Your task to perform on an android device: What's on my calendar tomorrow? Image 0: 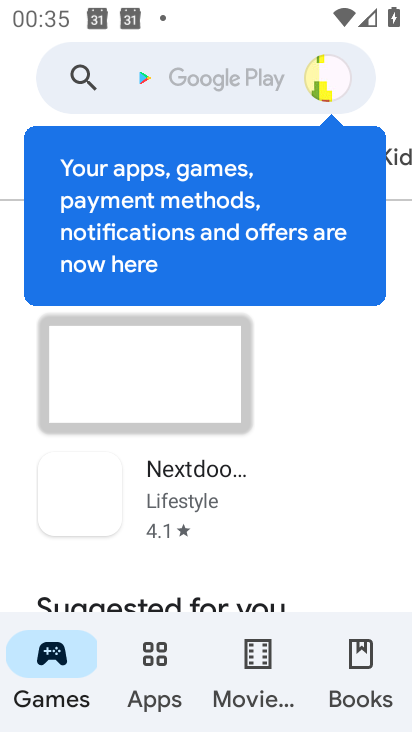
Step 0: press home button
Your task to perform on an android device: What's on my calendar tomorrow? Image 1: 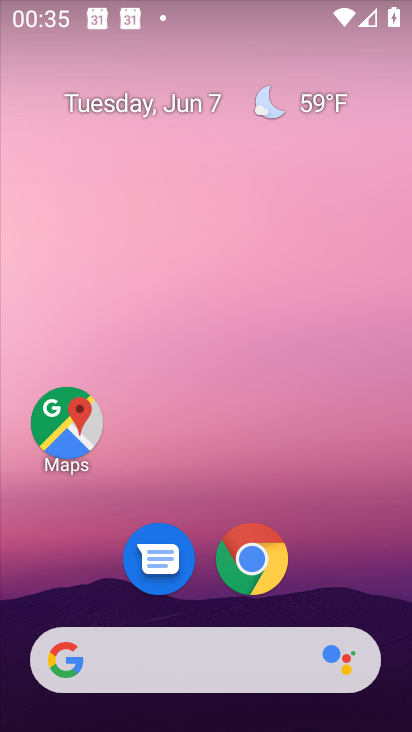
Step 1: drag from (332, 564) to (367, 63)
Your task to perform on an android device: What's on my calendar tomorrow? Image 2: 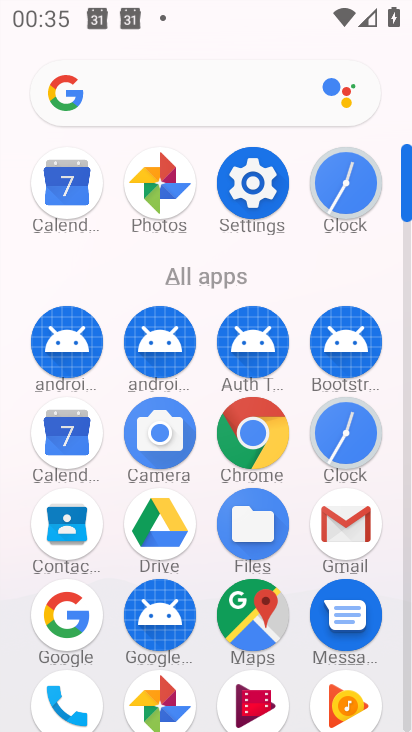
Step 2: click (407, 295)
Your task to perform on an android device: What's on my calendar tomorrow? Image 3: 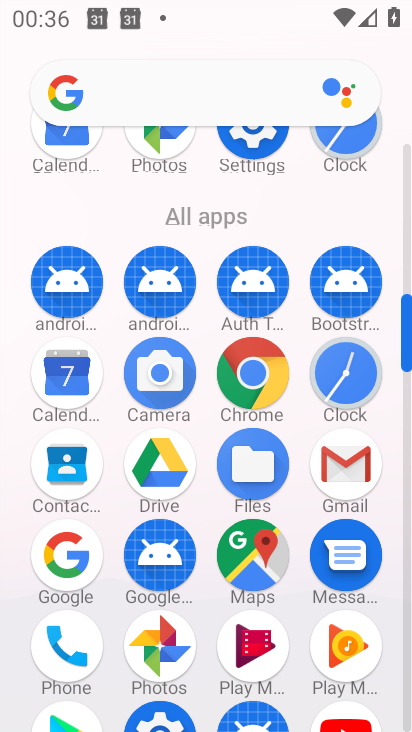
Step 3: click (58, 370)
Your task to perform on an android device: What's on my calendar tomorrow? Image 4: 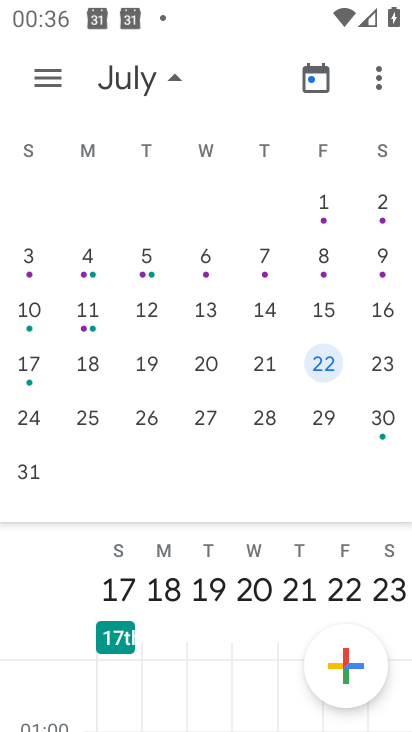
Step 4: drag from (250, 205) to (382, 216)
Your task to perform on an android device: What's on my calendar tomorrow? Image 5: 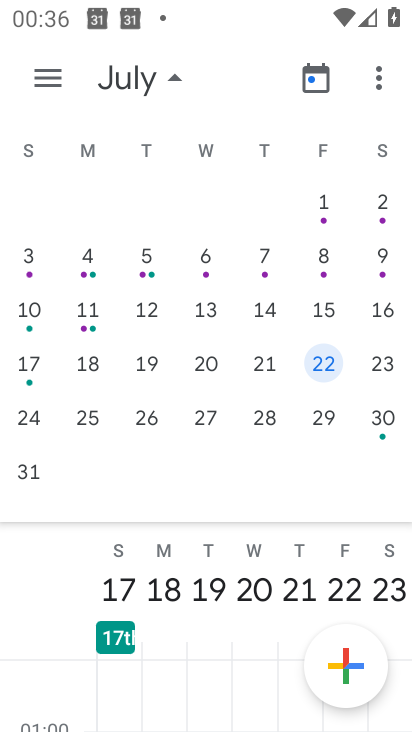
Step 5: drag from (25, 216) to (411, 221)
Your task to perform on an android device: What's on my calendar tomorrow? Image 6: 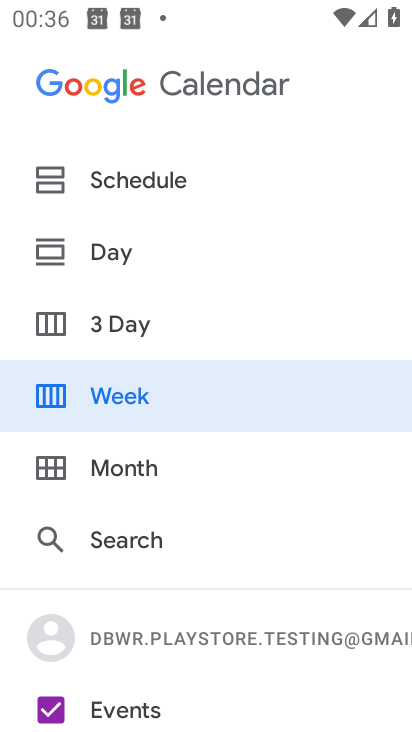
Step 6: click (149, 476)
Your task to perform on an android device: What's on my calendar tomorrow? Image 7: 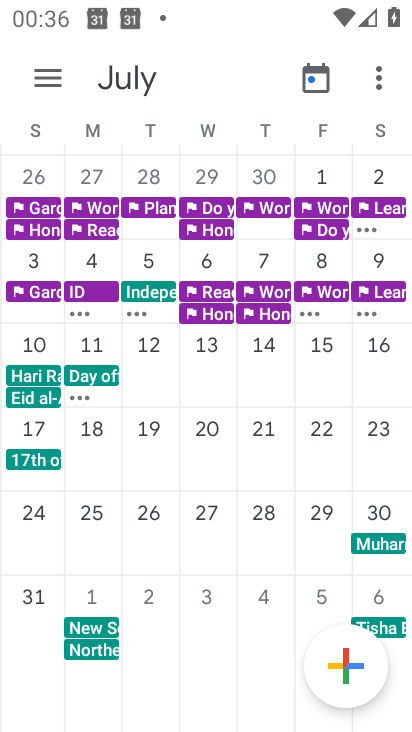
Step 7: drag from (133, 209) to (162, 447)
Your task to perform on an android device: What's on my calendar tomorrow? Image 8: 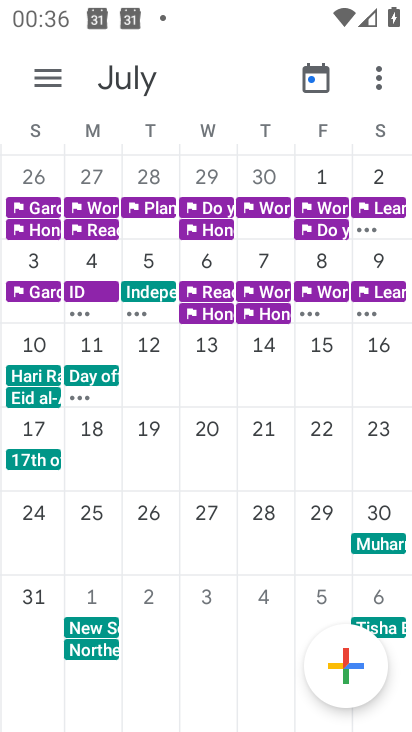
Step 8: drag from (4, 313) to (328, 309)
Your task to perform on an android device: What's on my calendar tomorrow? Image 9: 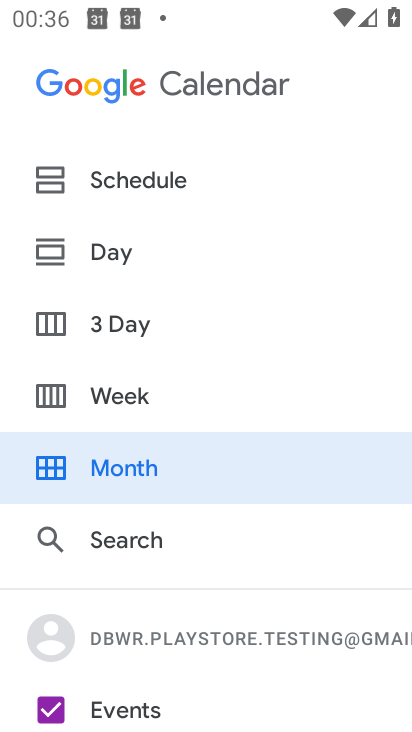
Step 9: click (232, 469)
Your task to perform on an android device: What's on my calendar tomorrow? Image 10: 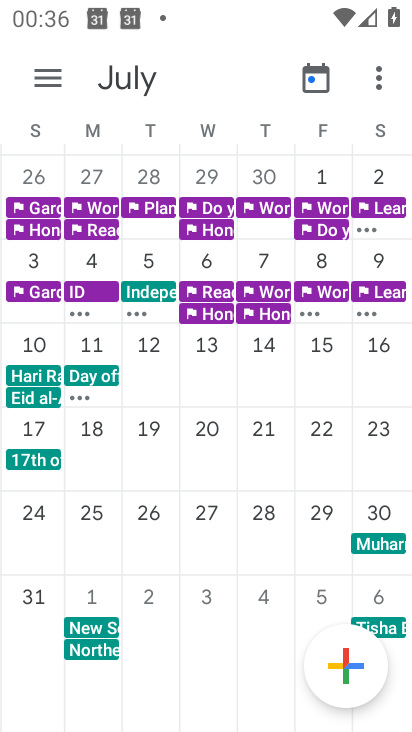
Step 10: drag from (32, 284) to (401, 391)
Your task to perform on an android device: What's on my calendar tomorrow? Image 11: 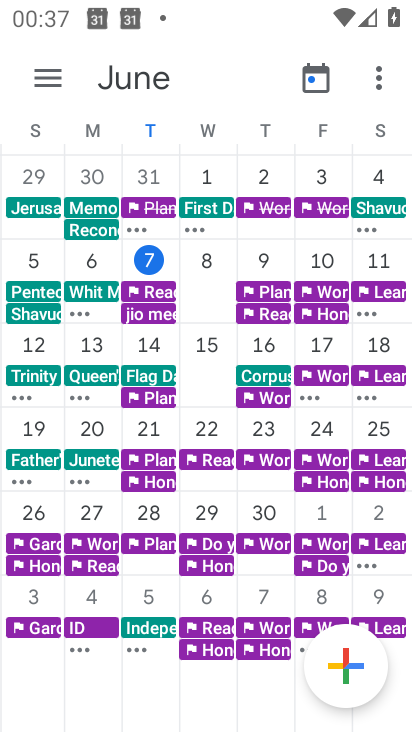
Step 11: click (209, 256)
Your task to perform on an android device: What's on my calendar tomorrow? Image 12: 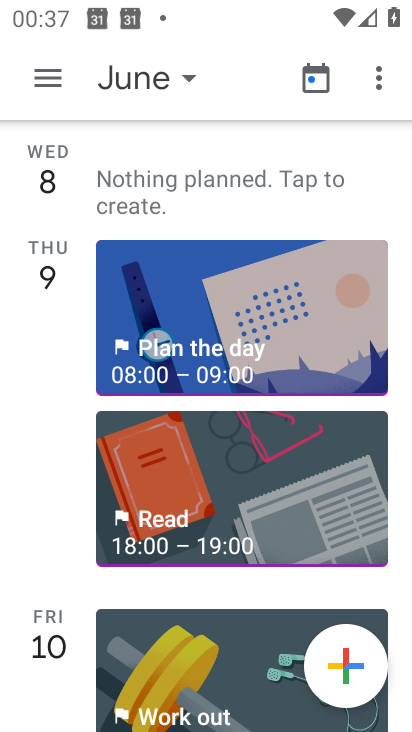
Step 12: press home button
Your task to perform on an android device: What's on my calendar tomorrow? Image 13: 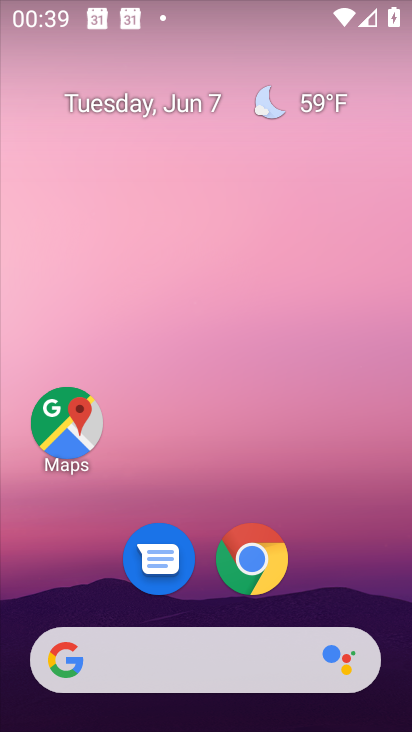
Step 13: click (338, 463)
Your task to perform on an android device: What's on my calendar tomorrow? Image 14: 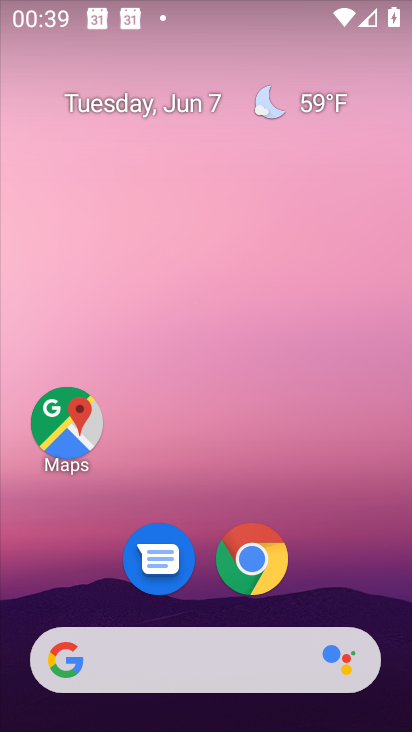
Step 14: drag from (339, 581) to (372, 170)
Your task to perform on an android device: What's on my calendar tomorrow? Image 15: 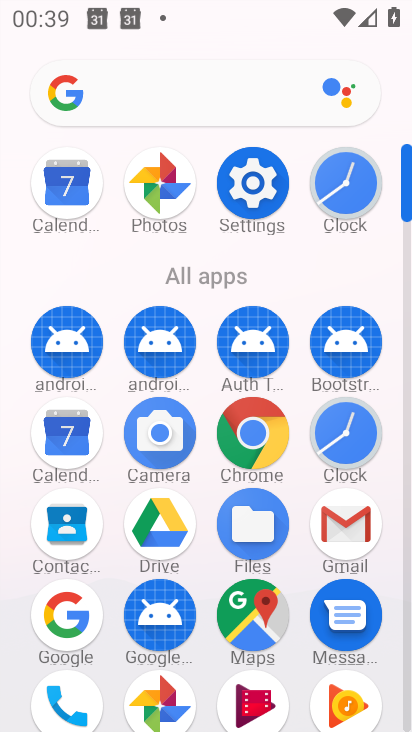
Step 15: click (372, 170)
Your task to perform on an android device: What's on my calendar tomorrow? Image 16: 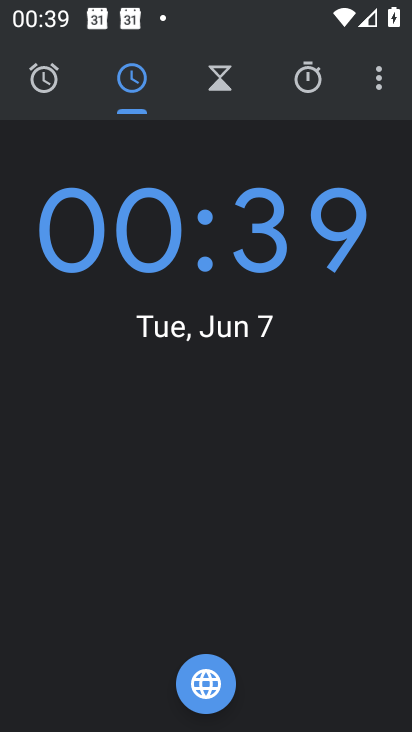
Step 16: press home button
Your task to perform on an android device: What's on my calendar tomorrow? Image 17: 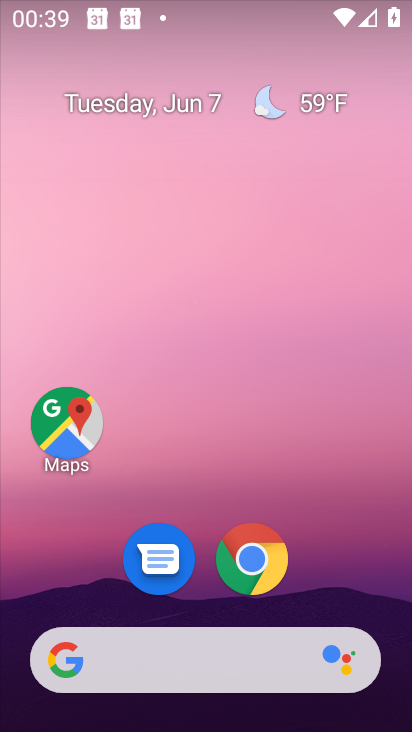
Step 17: drag from (343, 587) to (296, 41)
Your task to perform on an android device: What's on my calendar tomorrow? Image 18: 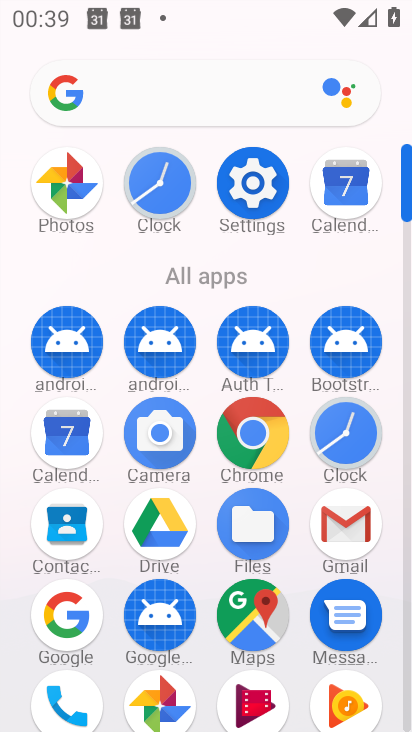
Step 18: click (338, 164)
Your task to perform on an android device: What's on my calendar tomorrow? Image 19: 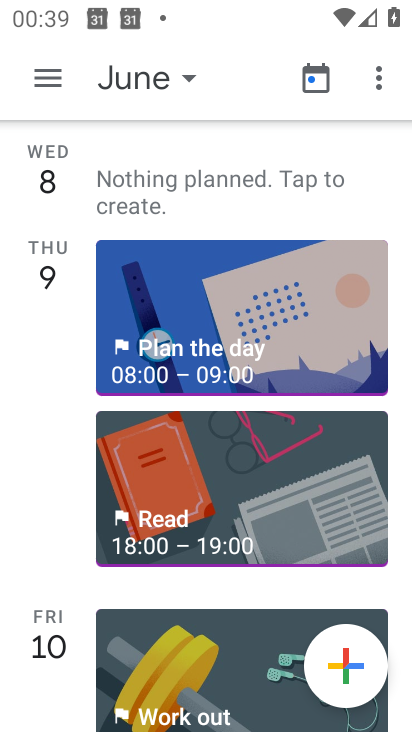
Step 19: click (46, 78)
Your task to perform on an android device: What's on my calendar tomorrow? Image 20: 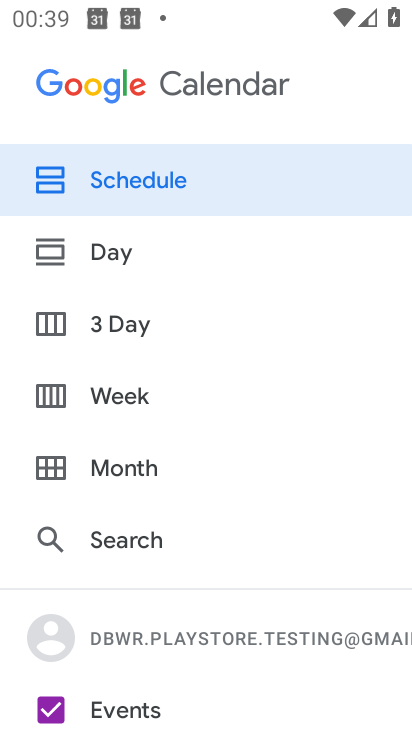
Step 20: click (107, 461)
Your task to perform on an android device: What's on my calendar tomorrow? Image 21: 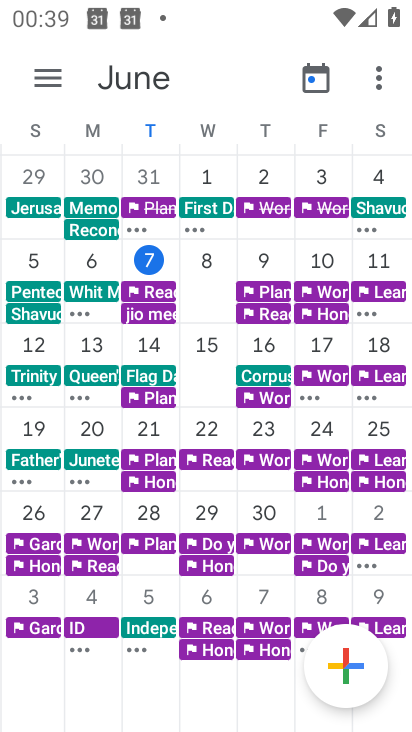
Step 21: click (194, 270)
Your task to perform on an android device: What's on my calendar tomorrow? Image 22: 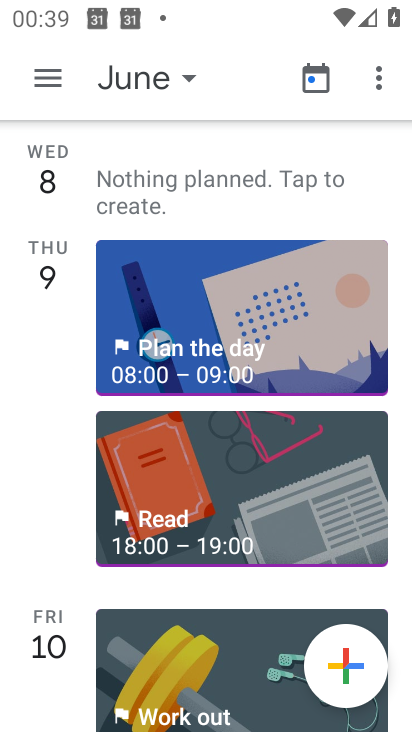
Step 22: task complete